Your task to perform on an android device: Open settings Image 0: 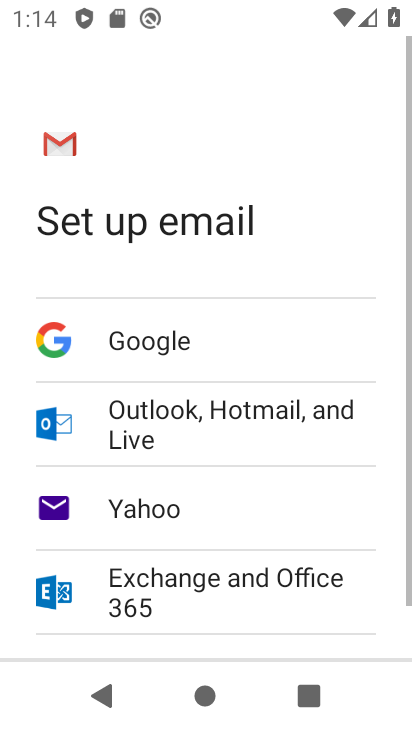
Step 0: press home button
Your task to perform on an android device: Open settings Image 1: 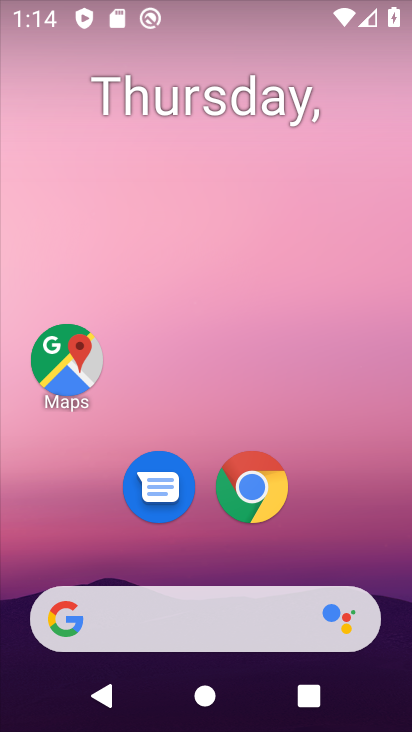
Step 1: drag from (312, 546) to (146, 103)
Your task to perform on an android device: Open settings Image 2: 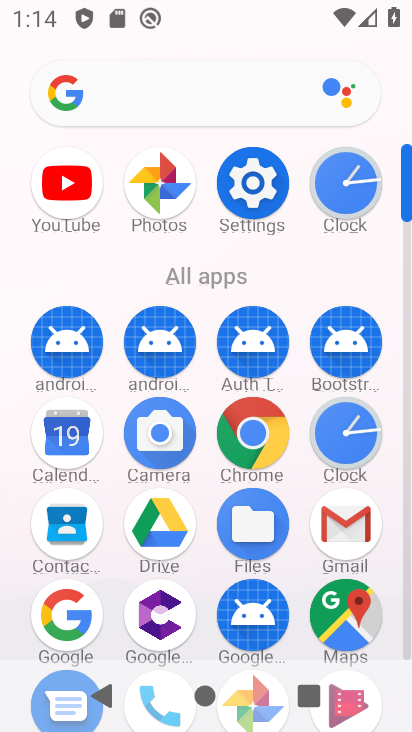
Step 2: click (244, 191)
Your task to perform on an android device: Open settings Image 3: 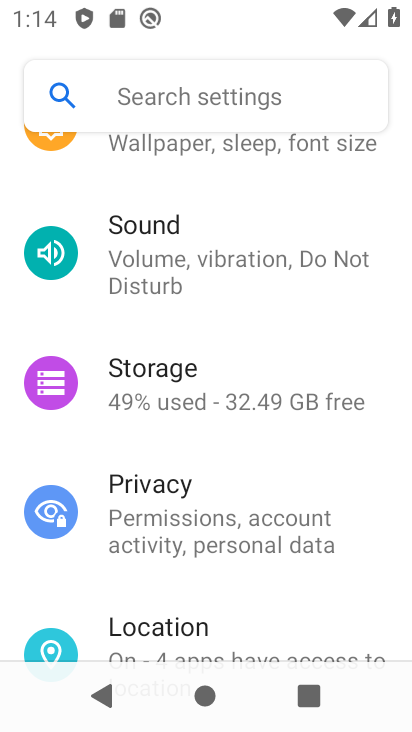
Step 3: task complete